Your task to perform on an android device: turn off notifications in google photos Image 0: 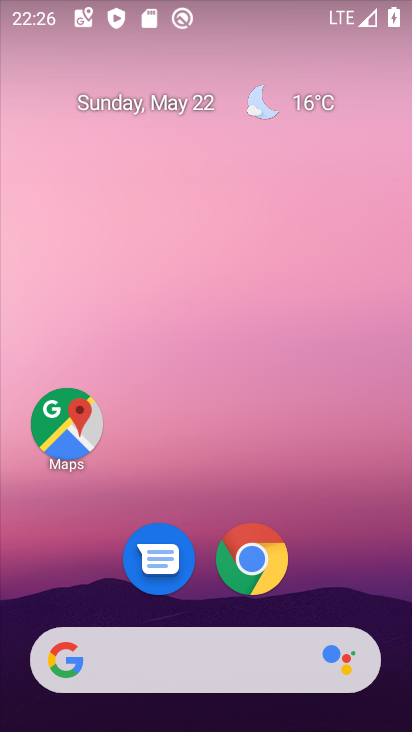
Step 0: drag from (276, 667) to (235, 197)
Your task to perform on an android device: turn off notifications in google photos Image 1: 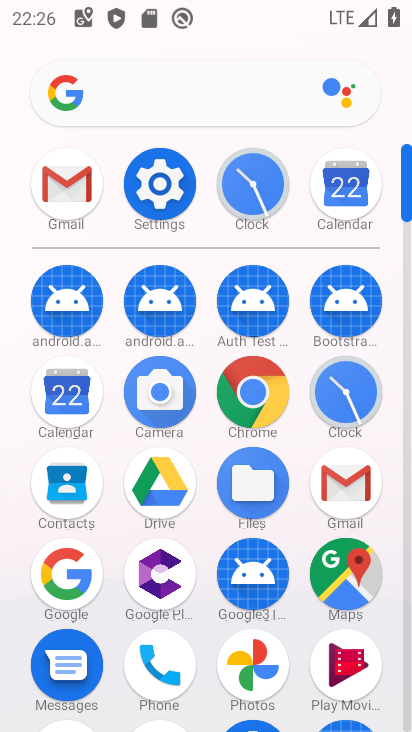
Step 1: click (257, 672)
Your task to perform on an android device: turn off notifications in google photos Image 2: 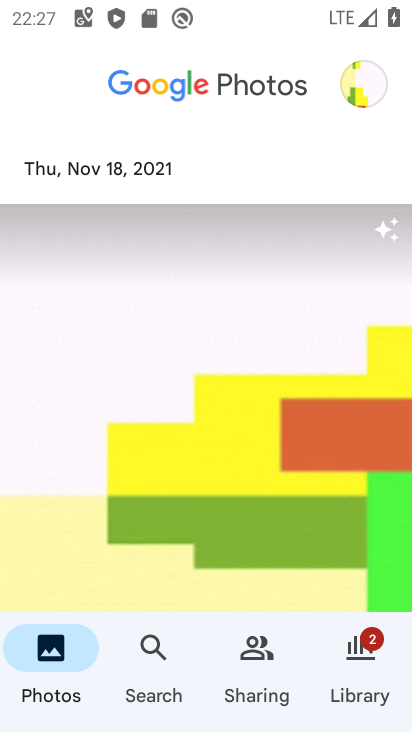
Step 2: click (347, 74)
Your task to perform on an android device: turn off notifications in google photos Image 3: 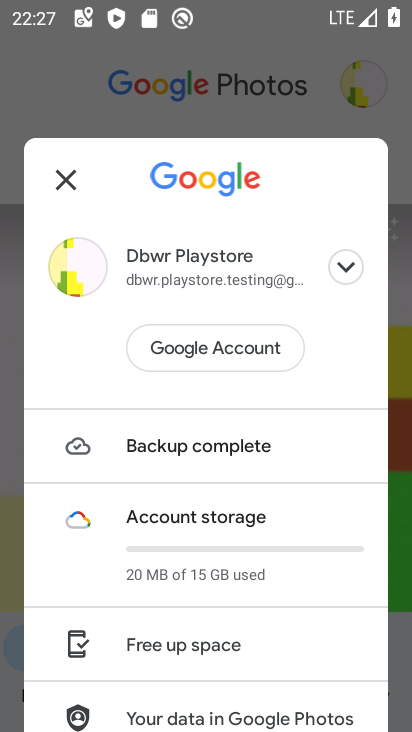
Step 3: drag from (228, 665) to (219, 486)
Your task to perform on an android device: turn off notifications in google photos Image 4: 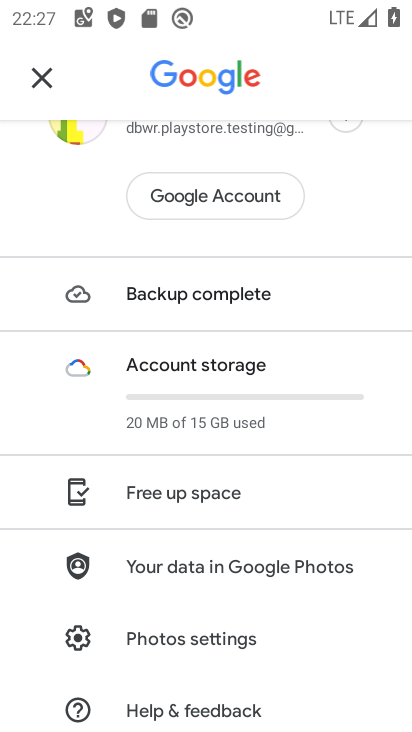
Step 4: click (184, 642)
Your task to perform on an android device: turn off notifications in google photos Image 5: 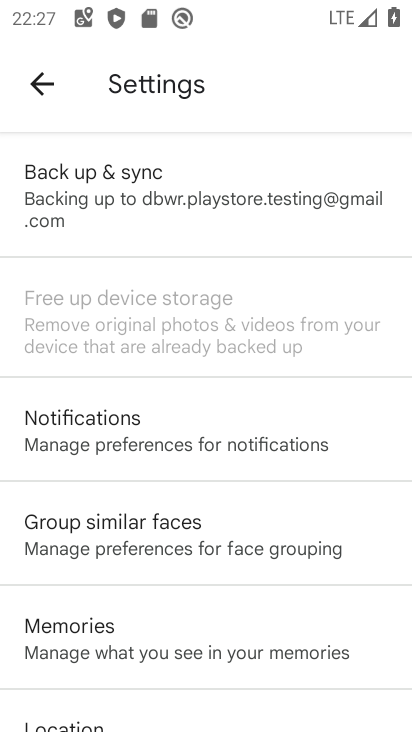
Step 5: click (74, 414)
Your task to perform on an android device: turn off notifications in google photos Image 6: 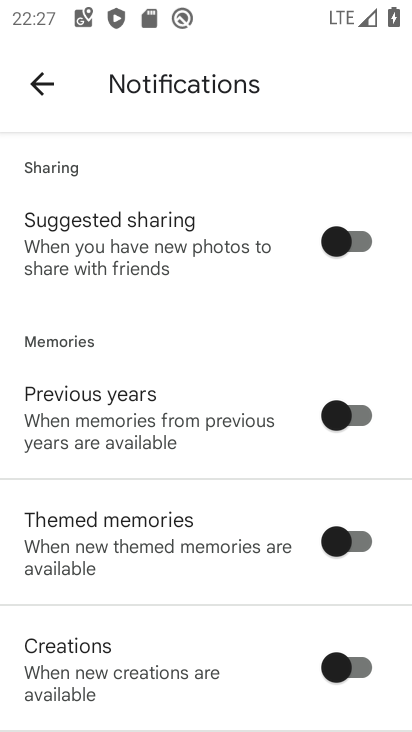
Step 6: drag from (159, 653) to (183, 244)
Your task to perform on an android device: turn off notifications in google photos Image 7: 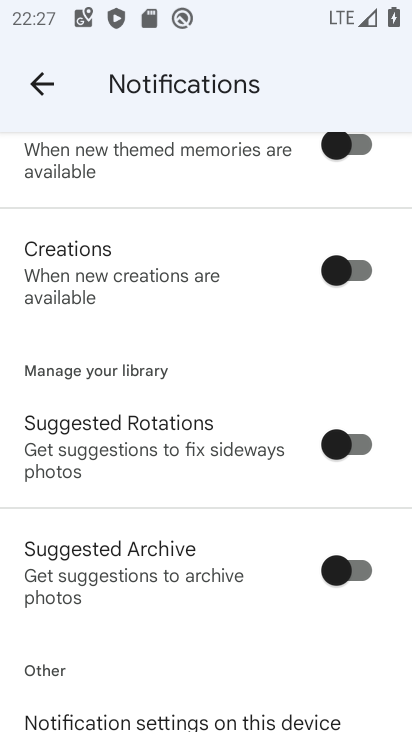
Step 7: drag from (150, 694) to (162, 353)
Your task to perform on an android device: turn off notifications in google photos Image 8: 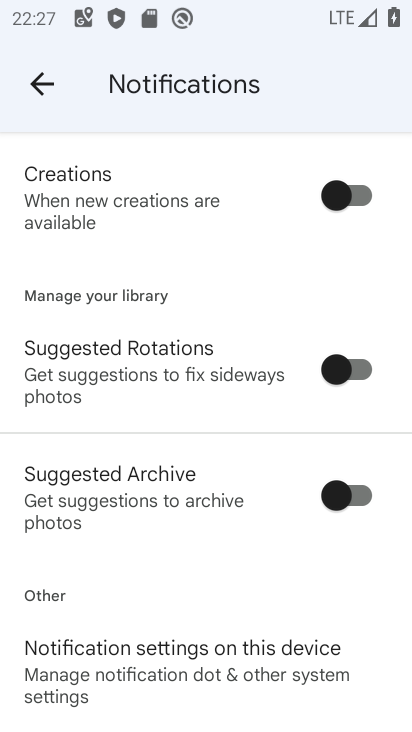
Step 8: click (138, 675)
Your task to perform on an android device: turn off notifications in google photos Image 9: 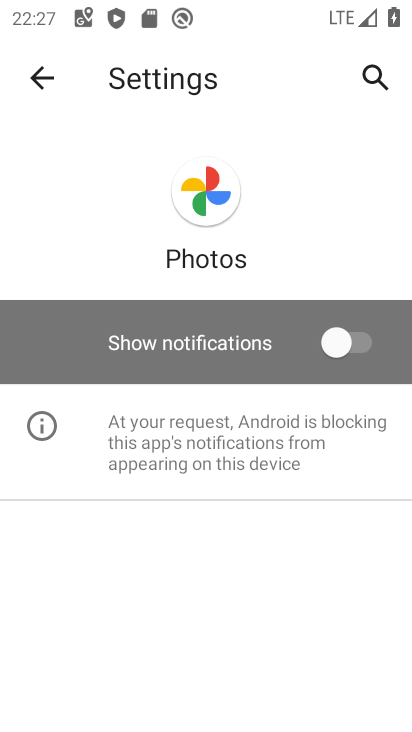
Step 9: click (370, 346)
Your task to perform on an android device: turn off notifications in google photos Image 10: 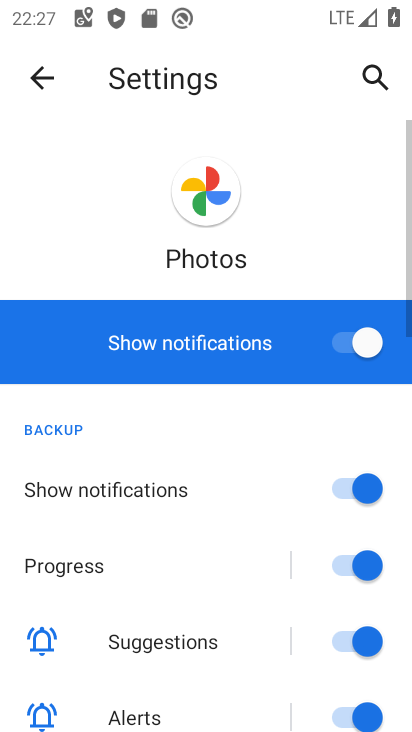
Step 10: click (342, 372)
Your task to perform on an android device: turn off notifications in google photos Image 11: 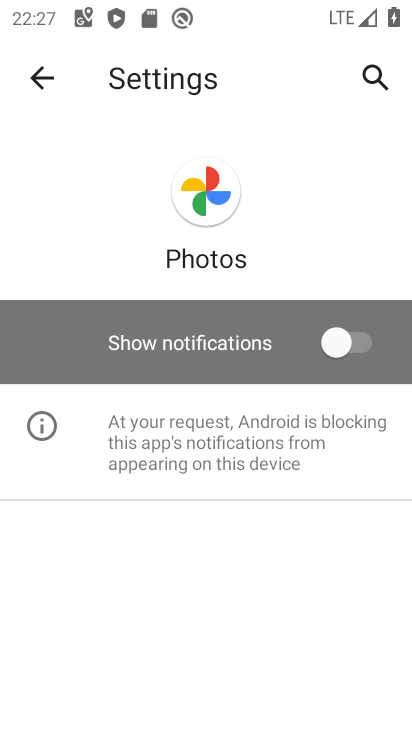
Step 11: task complete